Your task to perform on an android device: Open notification settings Image 0: 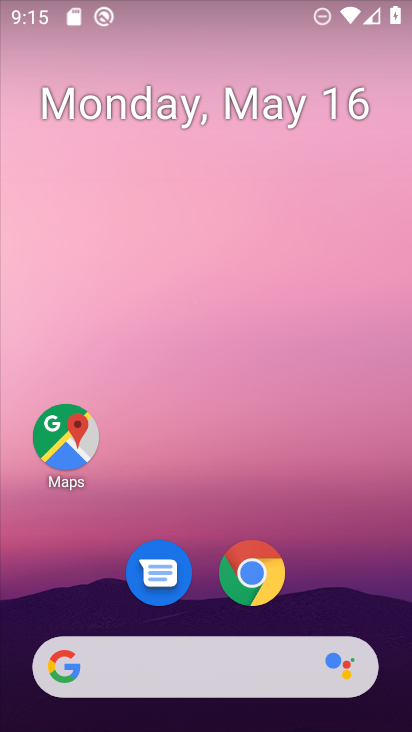
Step 0: drag from (373, 567) to (335, 105)
Your task to perform on an android device: Open notification settings Image 1: 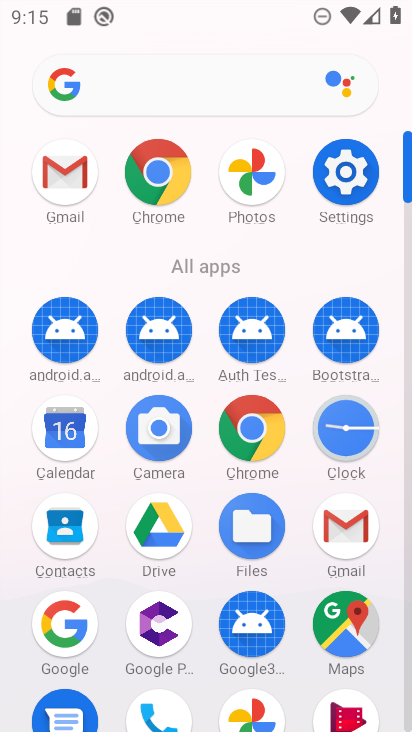
Step 1: click (353, 177)
Your task to perform on an android device: Open notification settings Image 2: 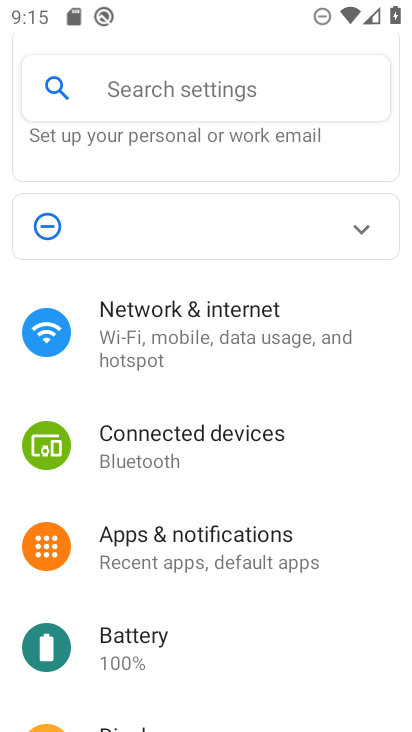
Step 2: click (233, 560)
Your task to perform on an android device: Open notification settings Image 3: 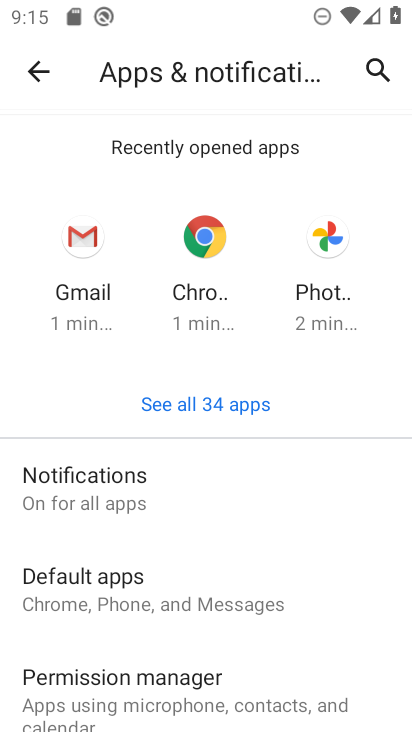
Step 3: click (116, 483)
Your task to perform on an android device: Open notification settings Image 4: 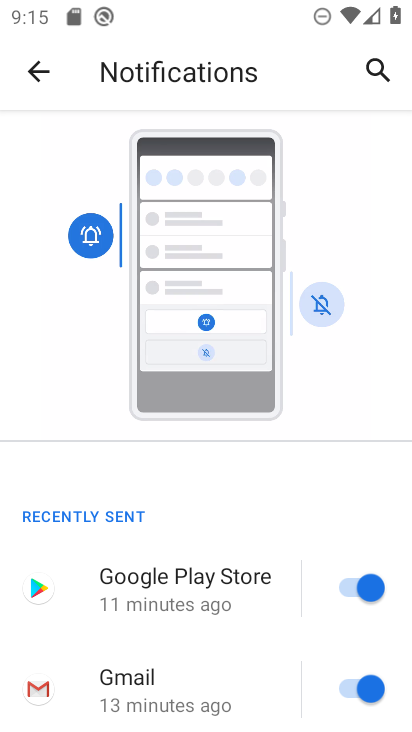
Step 4: task complete